Your task to perform on an android device: see tabs open on other devices in the chrome app Image 0: 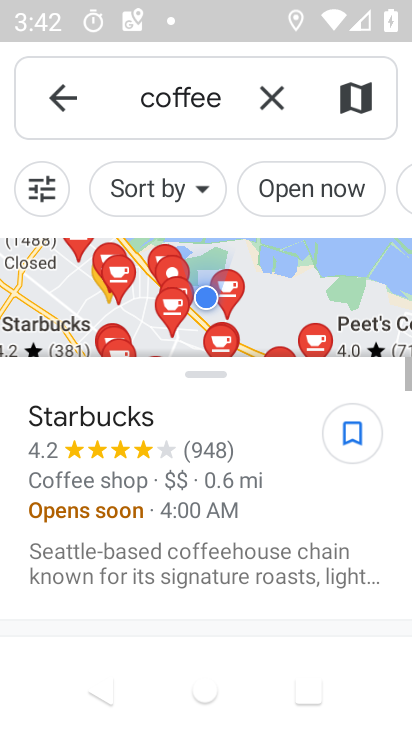
Step 0: press home button
Your task to perform on an android device: see tabs open on other devices in the chrome app Image 1: 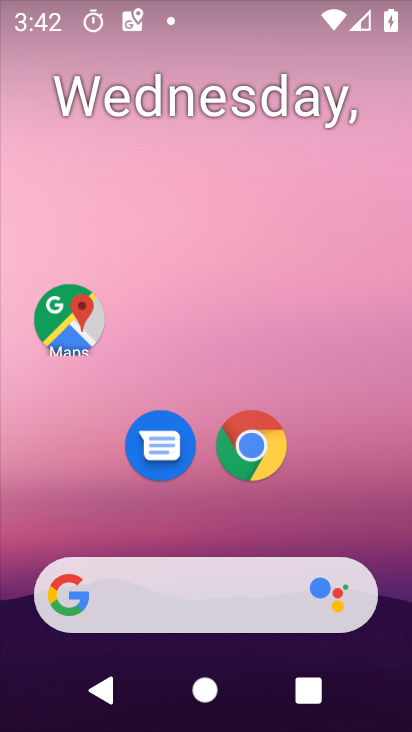
Step 1: click (246, 443)
Your task to perform on an android device: see tabs open on other devices in the chrome app Image 2: 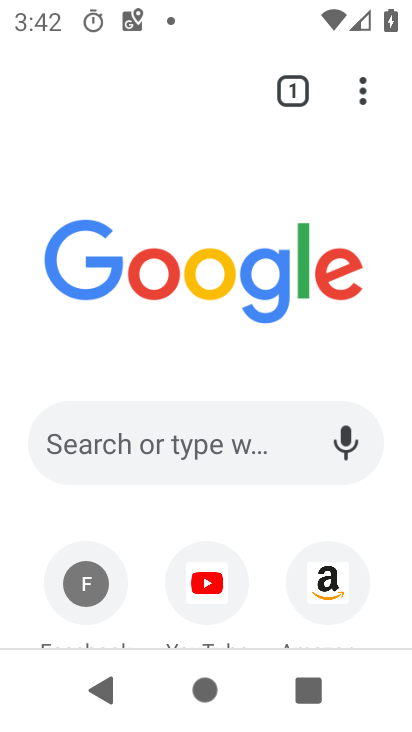
Step 2: click (293, 96)
Your task to perform on an android device: see tabs open on other devices in the chrome app Image 3: 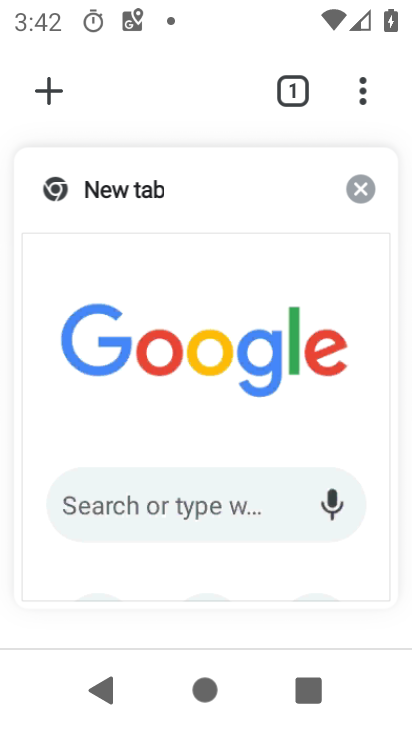
Step 3: task complete